Your task to perform on an android device: change the upload size in google photos Image 0: 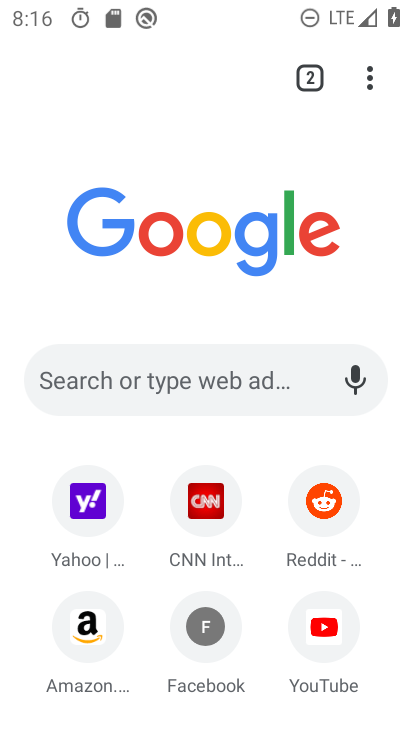
Step 0: press home button
Your task to perform on an android device: change the upload size in google photos Image 1: 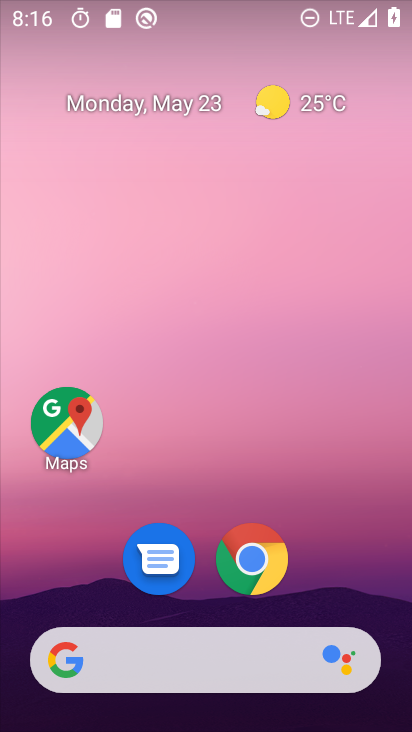
Step 1: drag from (380, 607) to (334, 39)
Your task to perform on an android device: change the upload size in google photos Image 2: 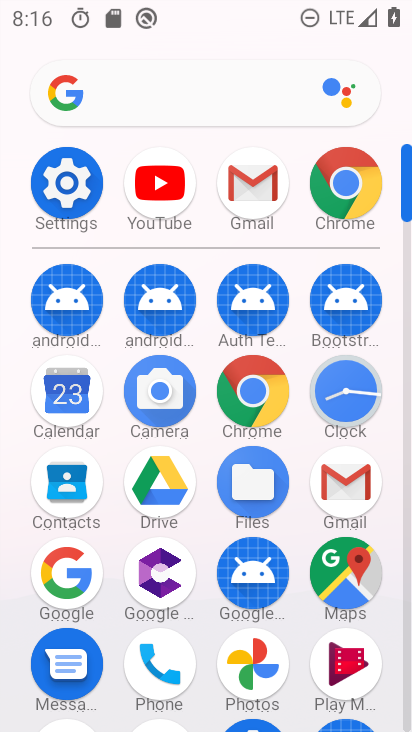
Step 2: click (257, 663)
Your task to perform on an android device: change the upload size in google photos Image 3: 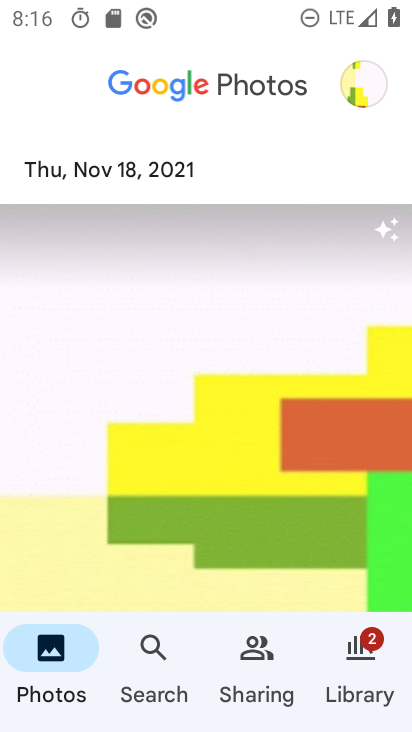
Step 3: press back button
Your task to perform on an android device: change the upload size in google photos Image 4: 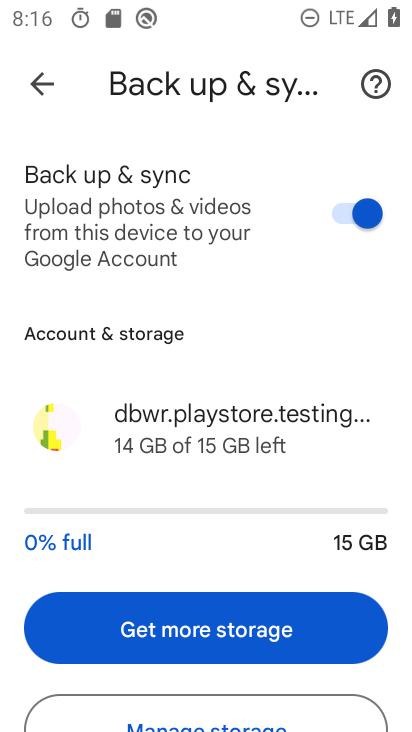
Step 4: press back button
Your task to perform on an android device: change the upload size in google photos Image 5: 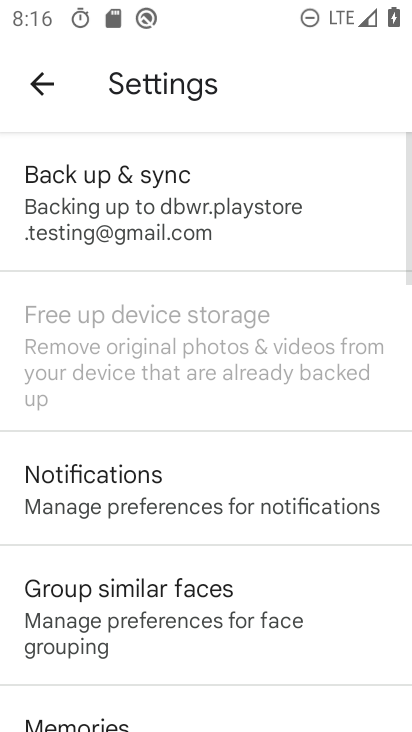
Step 5: click (209, 216)
Your task to perform on an android device: change the upload size in google photos Image 6: 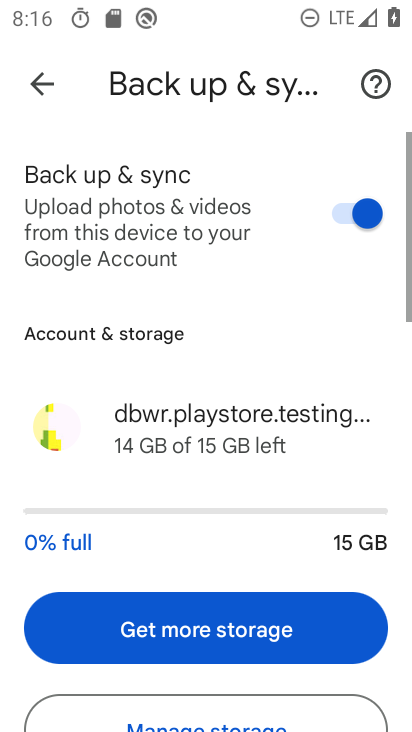
Step 6: drag from (212, 565) to (193, 50)
Your task to perform on an android device: change the upload size in google photos Image 7: 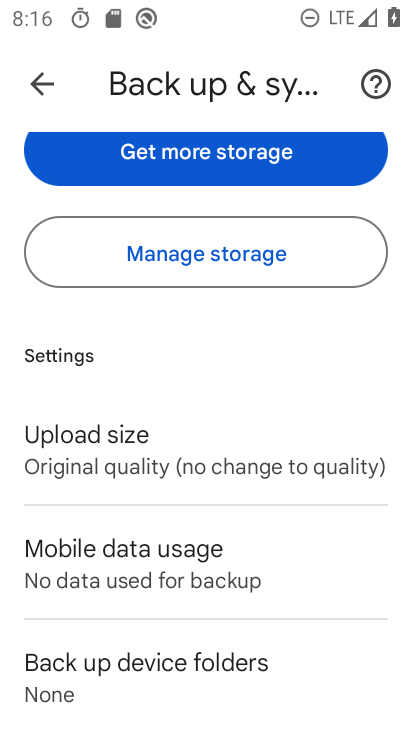
Step 7: click (161, 457)
Your task to perform on an android device: change the upload size in google photos Image 8: 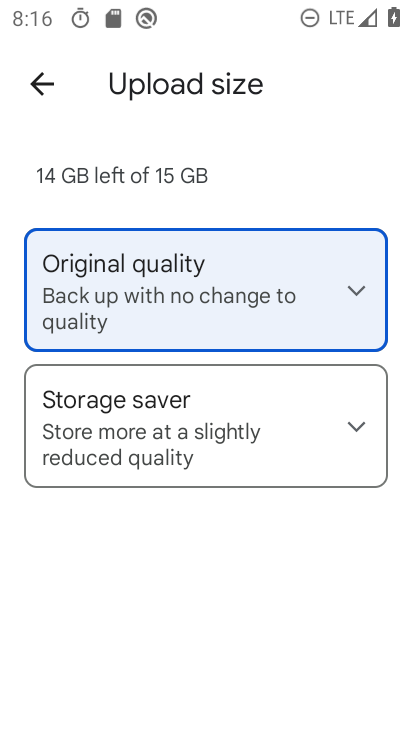
Step 8: click (170, 452)
Your task to perform on an android device: change the upload size in google photos Image 9: 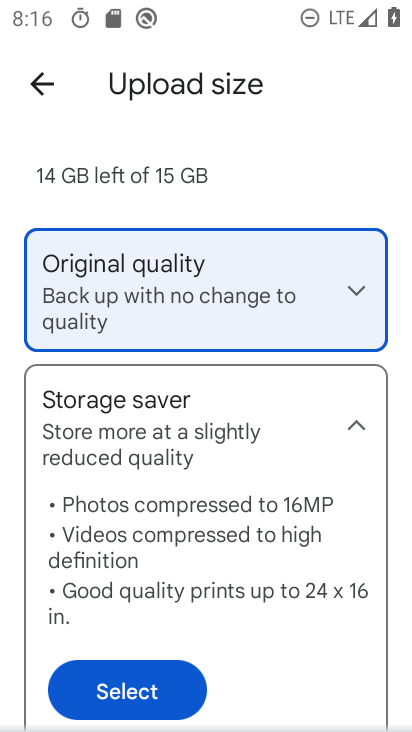
Step 9: click (140, 684)
Your task to perform on an android device: change the upload size in google photos Image 10: 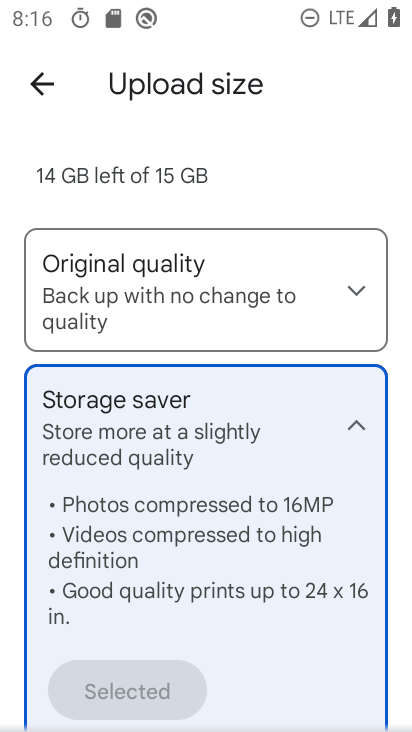
Step 10: task complete